Your task to perform on an android device: change your default location settings in chrome Image 0: 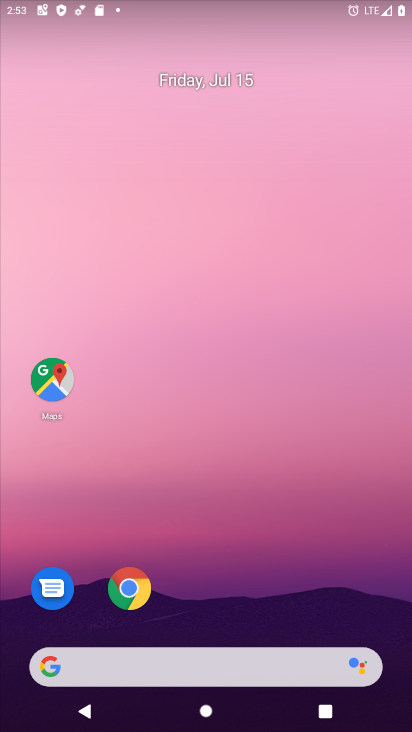
Step 0: click (132, 588)
Your task to perform on an android device: change your default location settings in chrome Image 1: 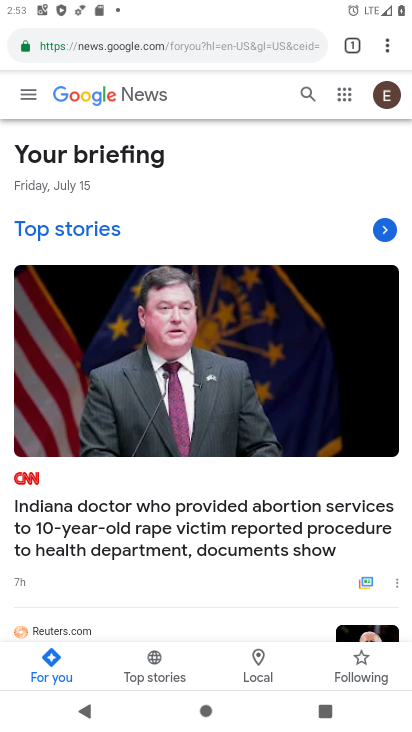
Step 1: click (388, 46)
Your task to perform on an android device: change your default location settings in chrome Image 2: 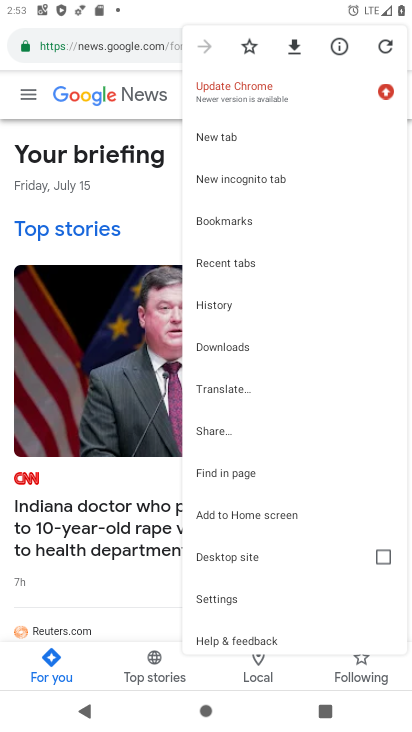
Step 2: click (221, 597)
Your task to perform on an android device: change your default location settings in chrome Image 3: 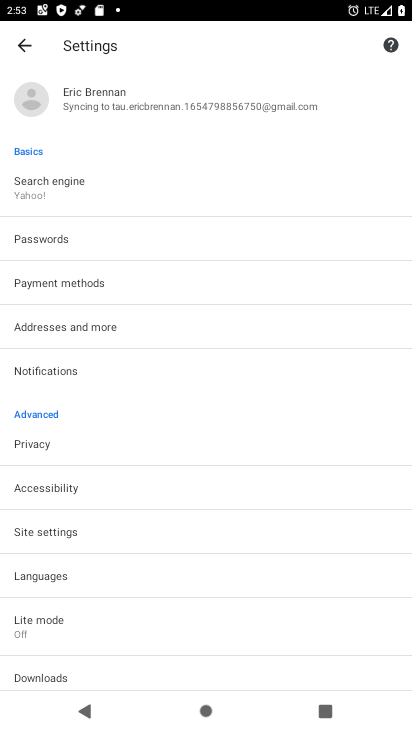
Step 3: click (73, 531)
Your task to perform on an android device: change your default location settings in chrome Image 4: 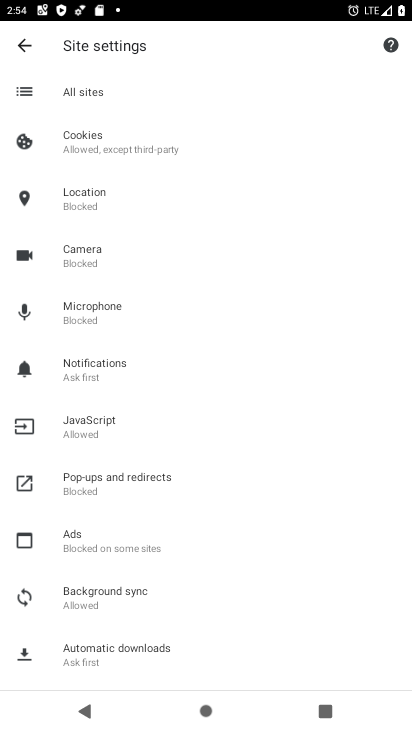
Step 4: click (88, 205)
Your task to perform on an android device: change your default location settings in chrome Image 5: 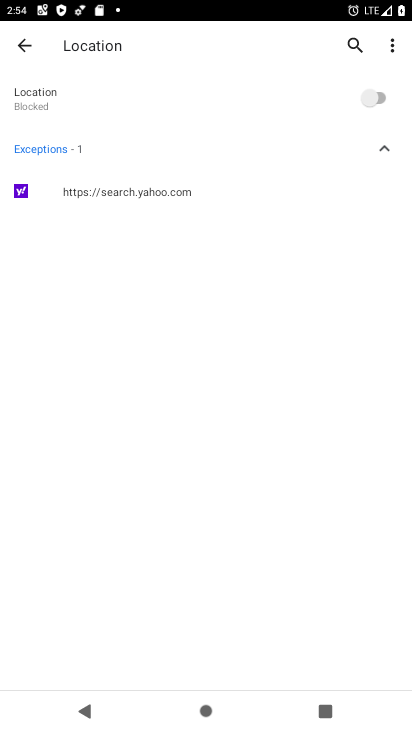
Step 5: click (364, 98)
Your task to perform on an android device: change your default location settings in chrome Image 6: 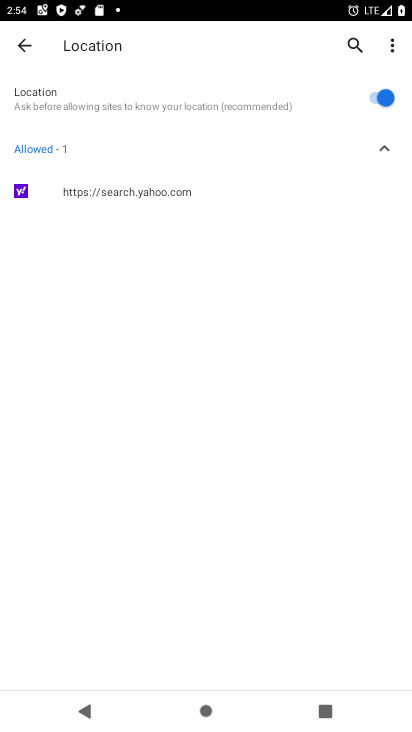
Step 6: task complete